Your task to perform on an android device: toggle notification dots Image 0: 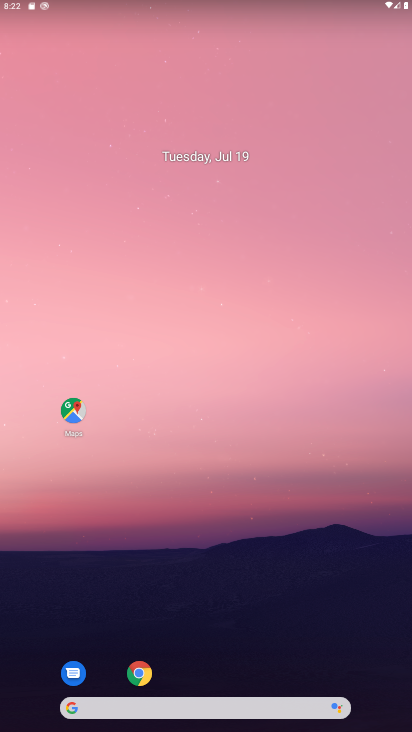
Step 0: drag from (349, 667) to (320, 110)
Your task to perform on an android device: toggle notification dots Image 1: 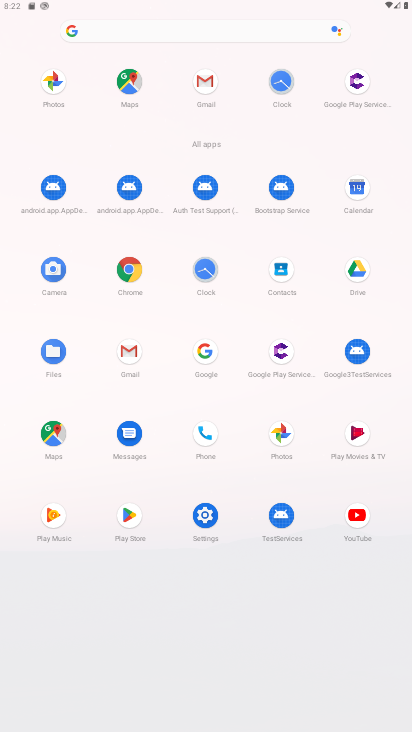
Step 1: click (206, 513)
Your task to perform on an android device: toggle notification dots Image 2: 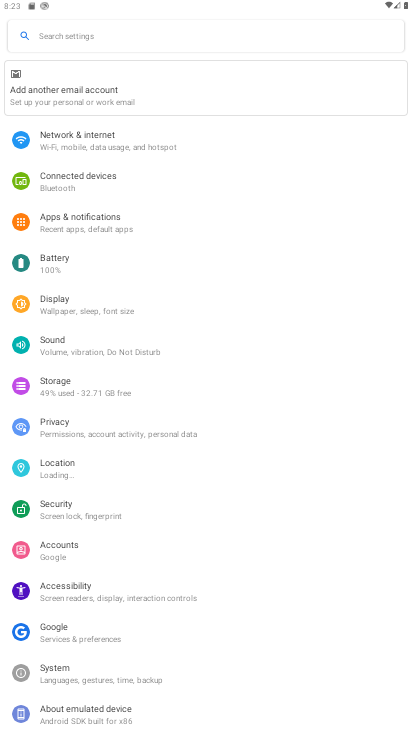
Step 2: click (80, 215)
Your task to perform on an android device: toggle notification dots Image 3: 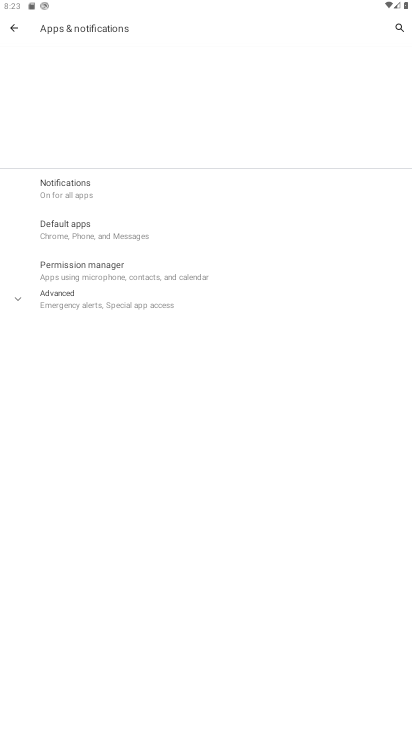
Step 3: click (63, 183)
Your task to perform on an android device: toggle notification dots Image 4: 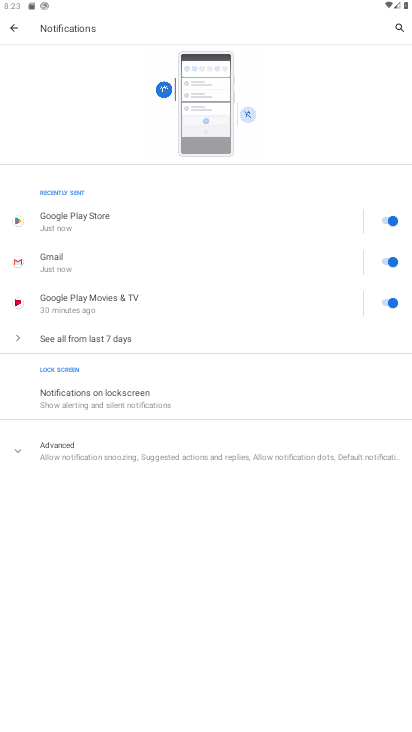
Step 4: click (61, 446)
Your task to perform on an android device: toggle notification dots Image 5: 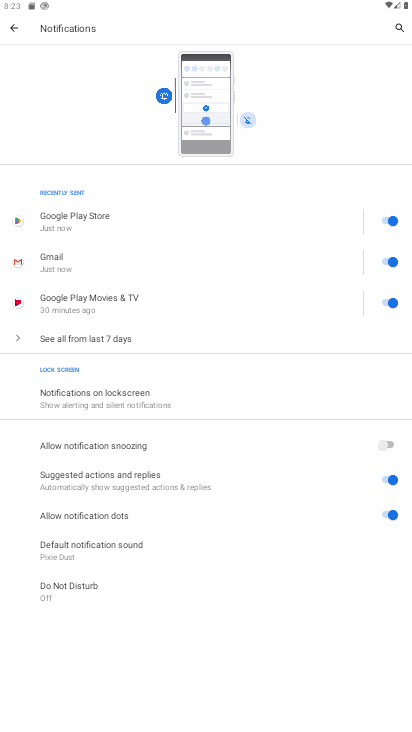
Step 5: click (386, 513)
Your task to perform on an android device: toggle notification dots Image 6: 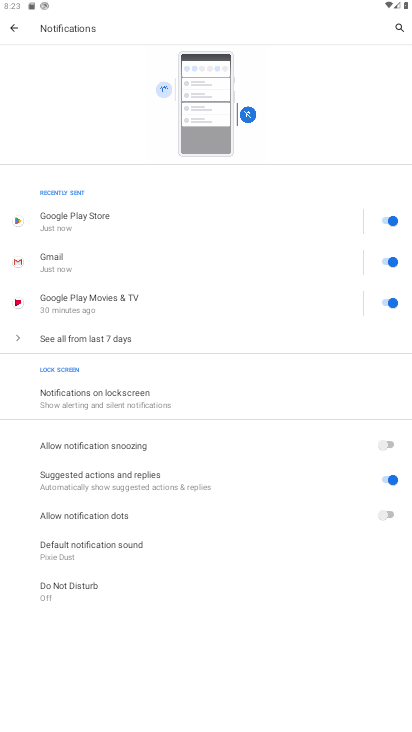
Step 6: task complete